Your task to perform on an android device: Go to accessibility settings Image 0: 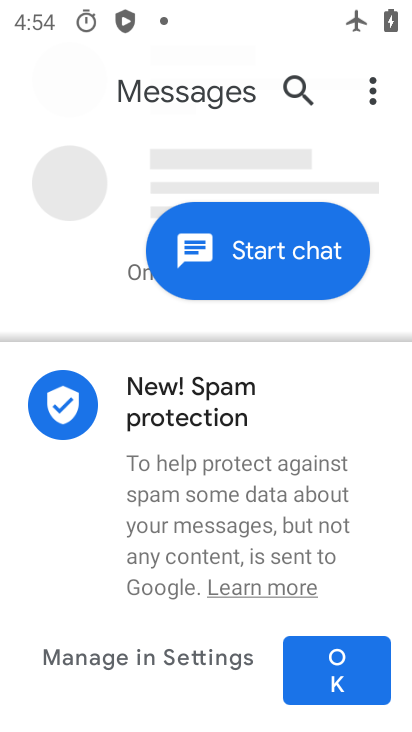
Step 0: press home button
Your task to perform on an android device: Go to accessibility settings Image 1: 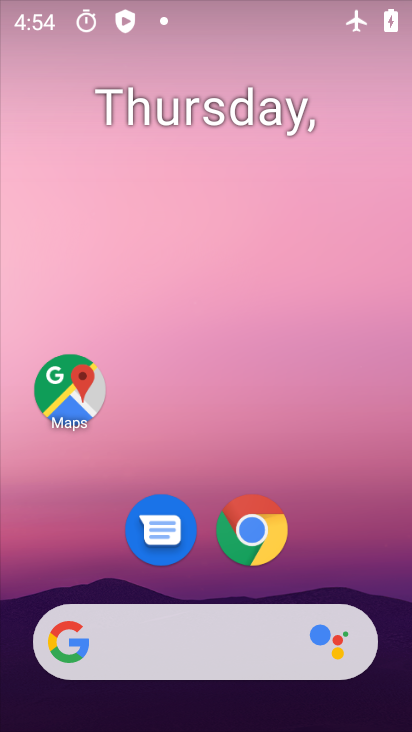
Step 1: drag from (293, 578) to (324, 22)
Your task to perform on an android device: Go to accessibility settings Image 2: 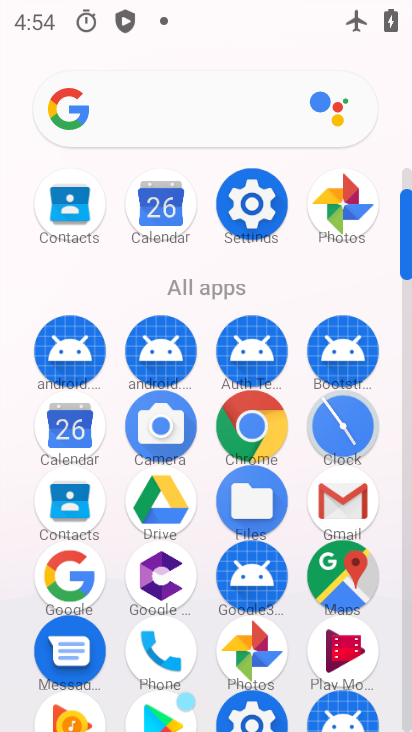
Step 2: click (256, 176)
Your task to perform on an android device: Go to accessibility settings Image 3: 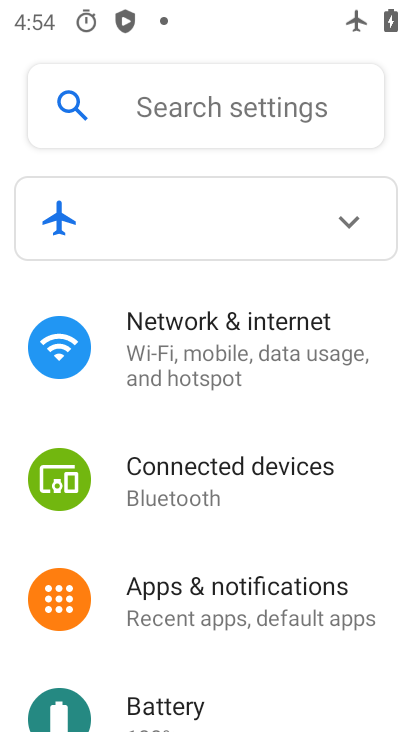
Step 3: drag from (227, 625) to (292, 108)
Your task to perform on an android device: Go to accessibility settings Image 4: 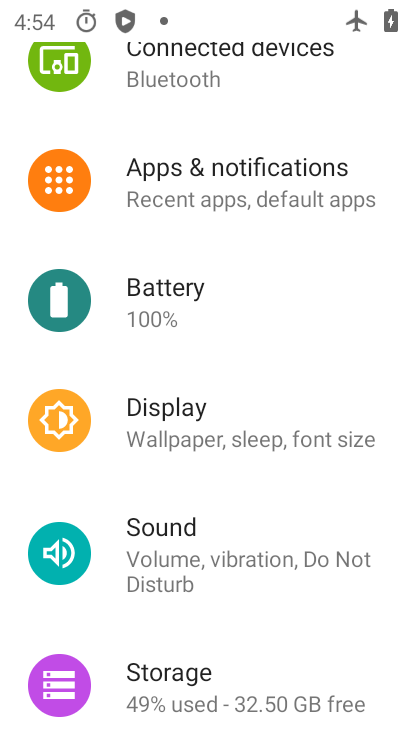
Step 4: drag from (292, 644) to (333, 117)
Your task to perform on an android device: Go to accessibility settings Image 5: 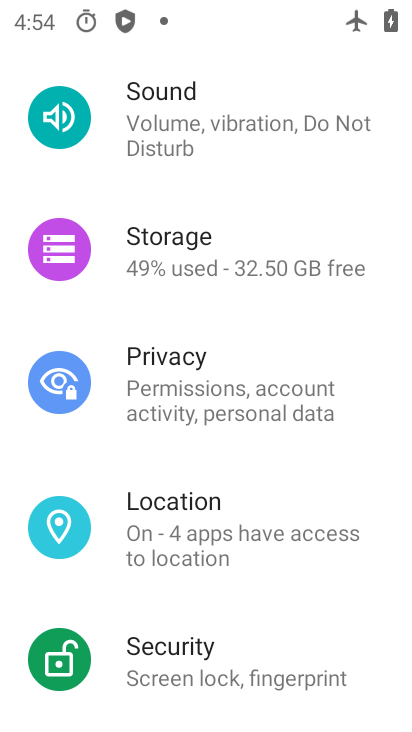
Step 5: drag from (246, 636) to (299, 54)
Your task to perform on an android device: Go to accessibility settings Image 6: 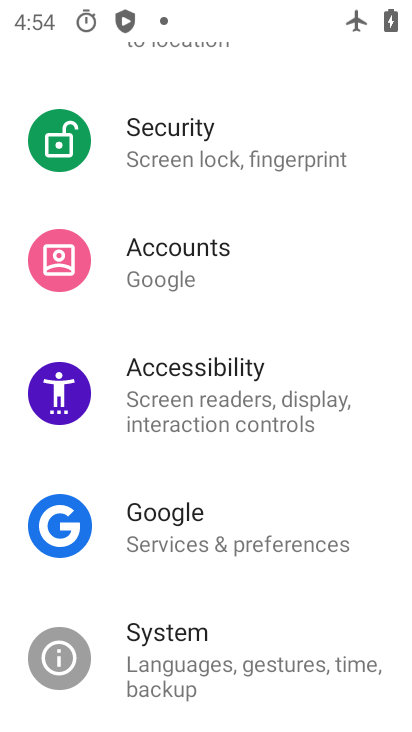
Step 6: click (252, 411)
Your task to perform on an android device: Go to accessibility settings Image 7: 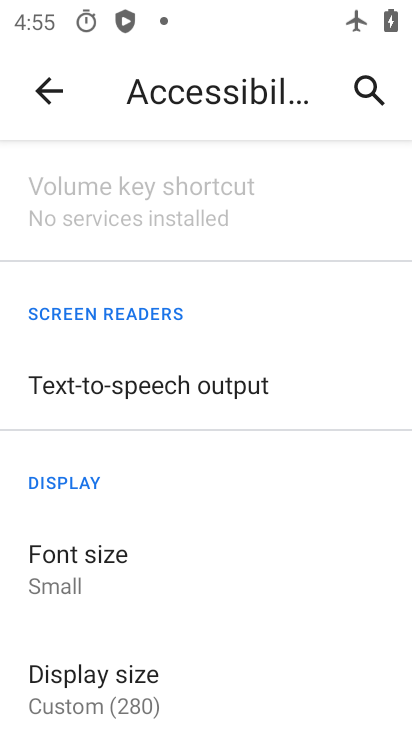
Step 7: task complete